Your task to perform on an android device: turn off picture-in-picture Image 0: 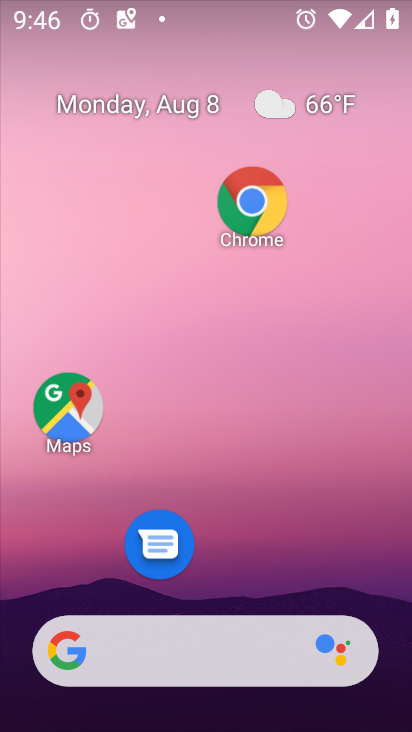
Step 0: press home button
Your task to perform on an android device: turn off picture-in-picture Image 1: 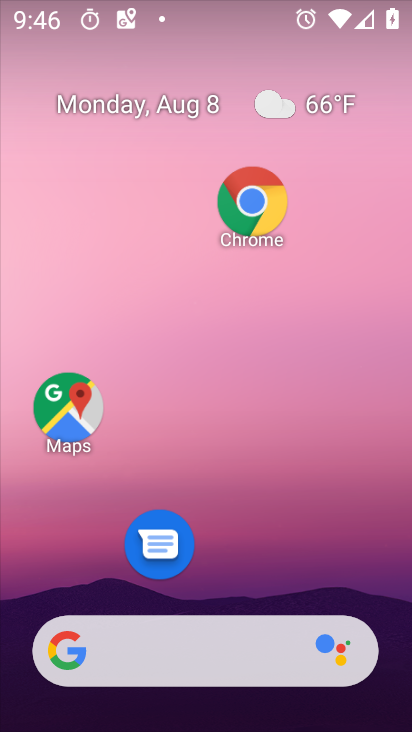
Step 1: click (244, 201)
Your task to perform on an android device: turn off picture-in-picture Image 2: 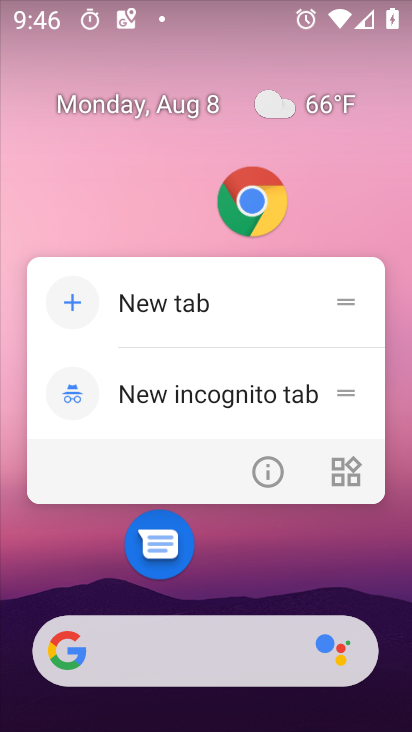
Step 2: click (271, 470)
Your task to perform on an android device: turn off picture-in-picture Image 3: 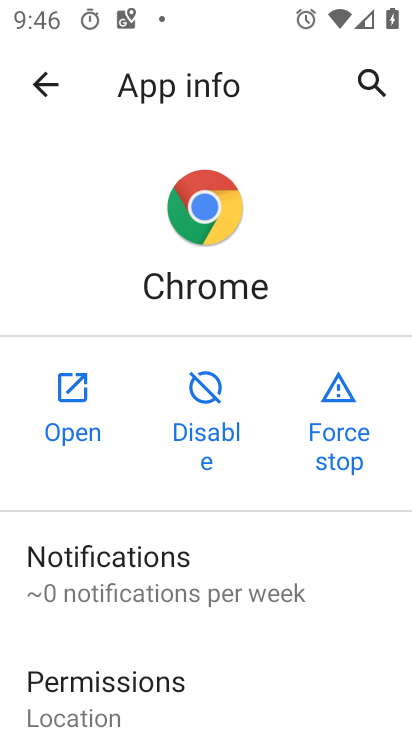
Step 3: drag from (236, 635) to (232, 260)
Your task to perform on an android device: turn off picture-in-picture Image 4: 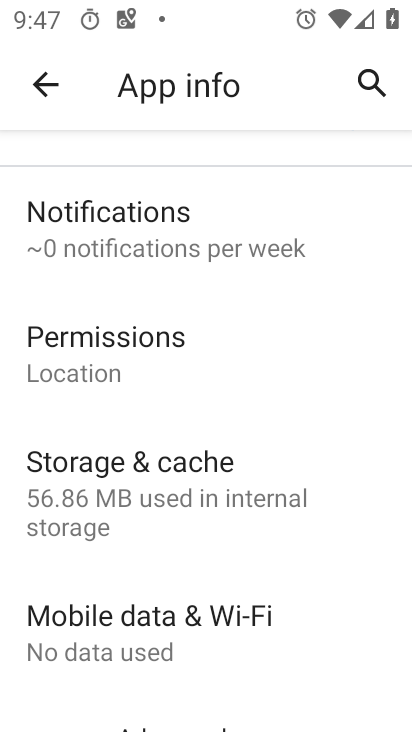
Step 4: drag from (198, 623) to (214, 210)
Your task to perform on an android device: turn off picture-in-picture Image 5: 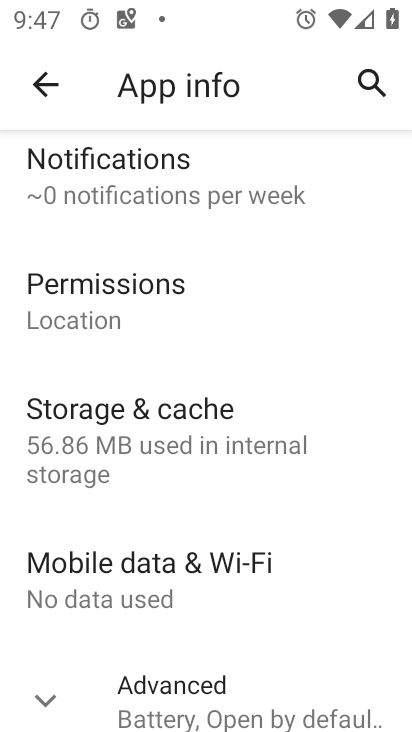
Step 5: drag from (212, 676) to (233, 230)
Your task to perform on an android device: turn off picture-in-picture Image 6: 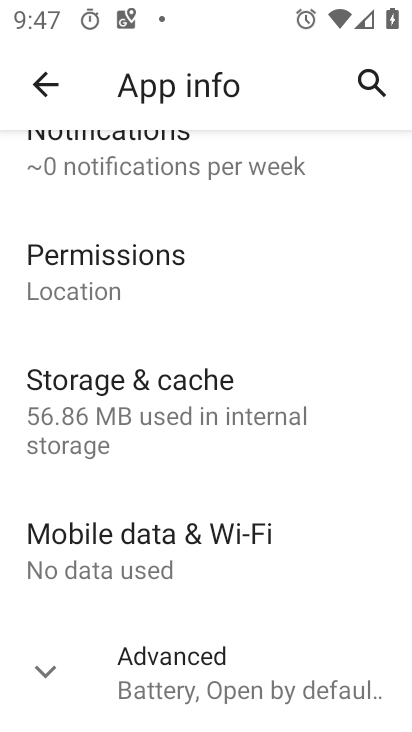
Step 6: click (46, 666)
Your task to perform on an android device: turn off picture-in-picture Image 7: 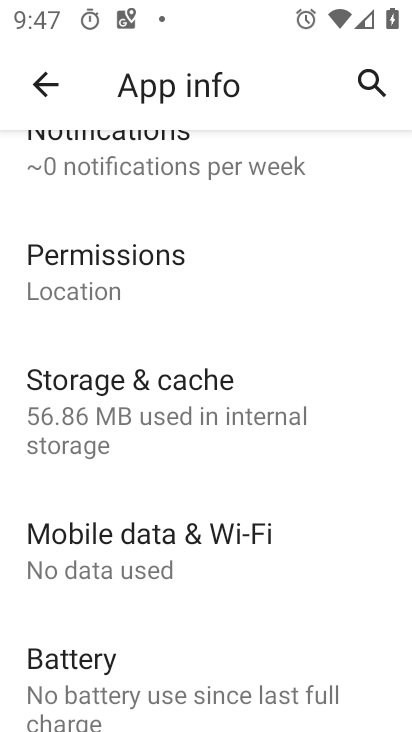
Step 7: drag from (146, 680) to (180, 184)
Your task to perform on an android device: turn off picture-in-picture Image 8: 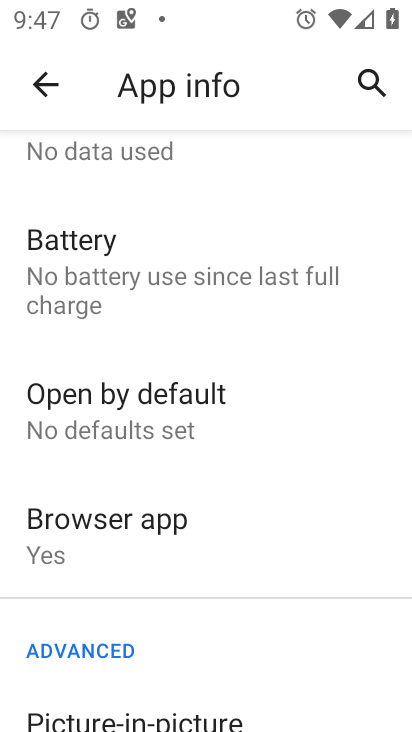
Step 8: click (159, 703)
Your task to perform on an android device: turn off picture-in-picture Image 9: 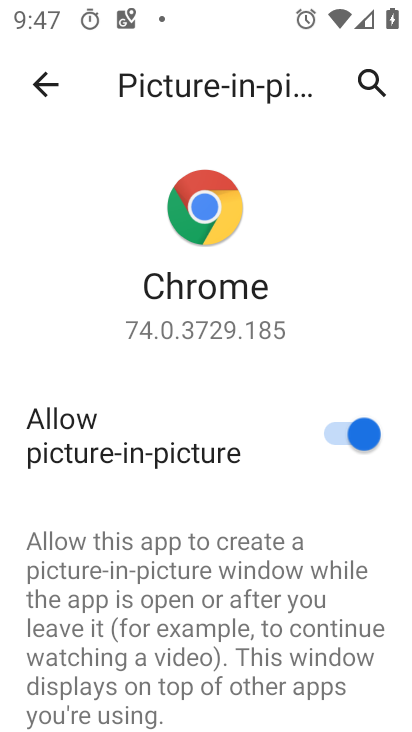
Step 9: click (347, 420)
Your task to perform on an android device: turn off picture-in-picture Image 10: 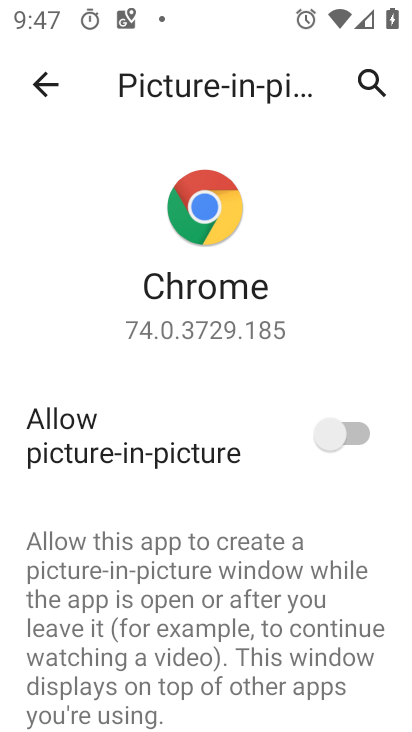
Step 10: task complete